Your task to perform on an android device: check out phone information Image 0: 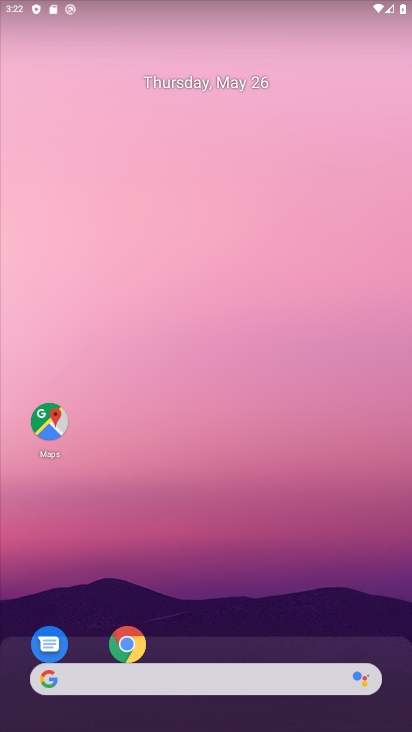
Step 0: drag from (193, 658) to (317, 140)
Your task to perform on an android device: check out phone information Image 1: 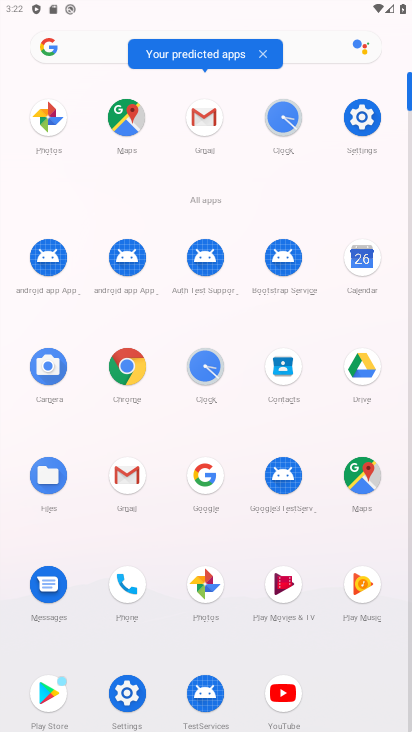
Step 1: drag from (156, 639) to (274, 351)
Your task to perform on an android device: check out phone information Image 2: 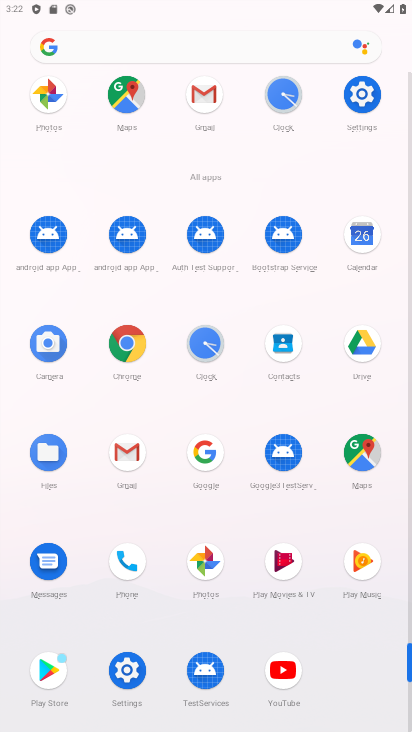
Step 2: click (121, 673)
Your task to perform on an android device: check out phone information Image 3: 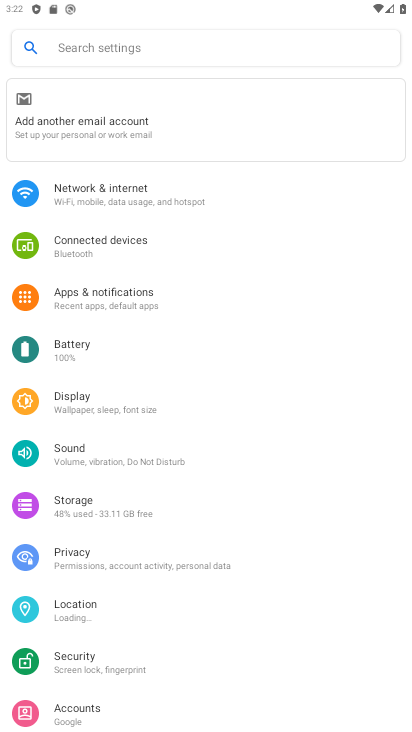
Step 3: drag from (164, 682) to (302, 249)
Your task to perform on an android device: check out phone information Image 4: 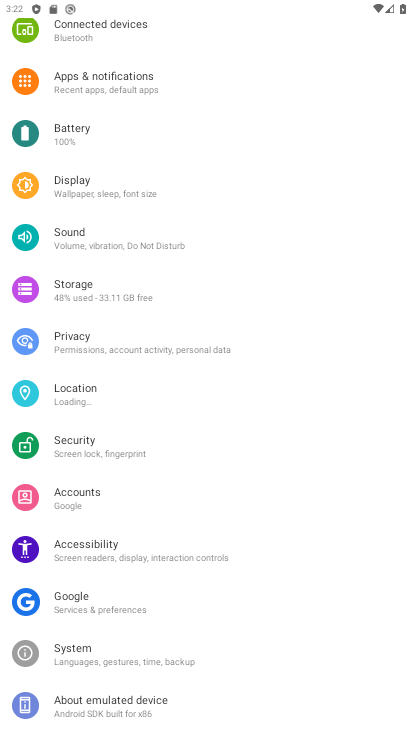
Step 4: click (178, 704)
Your task to perform on an android device: check out phone information Image 5: 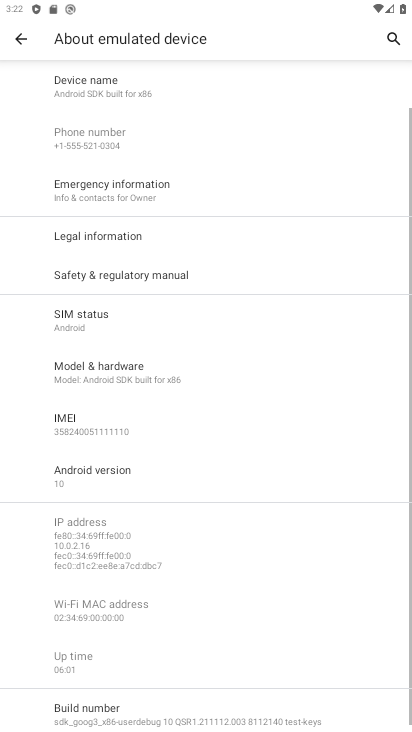
Step 5: task complete